Your task to perform on an android device: open device folders in google photos Image 0: 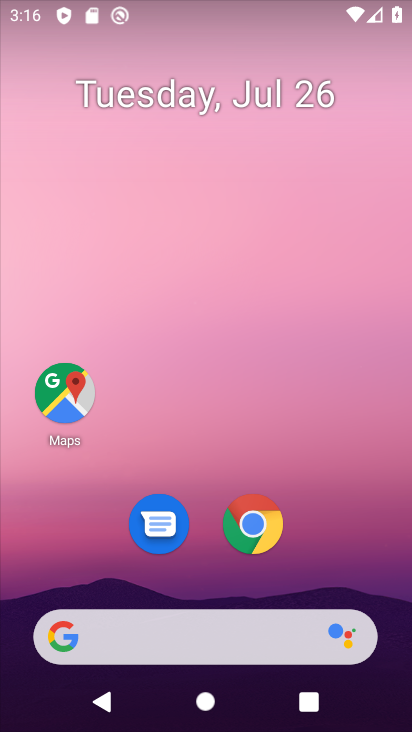
Step 0: drag from (312, 395) to (297, 17)
Your task to perform on an android device: open device folders in google photos Image 1: 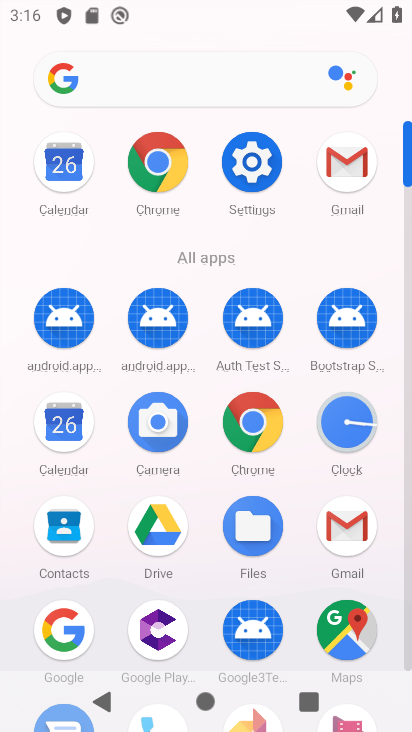
Step 1: drag from (302, 495) to (291, 217)
Your task to perform on an android device: open device folders in google photos Image 2: 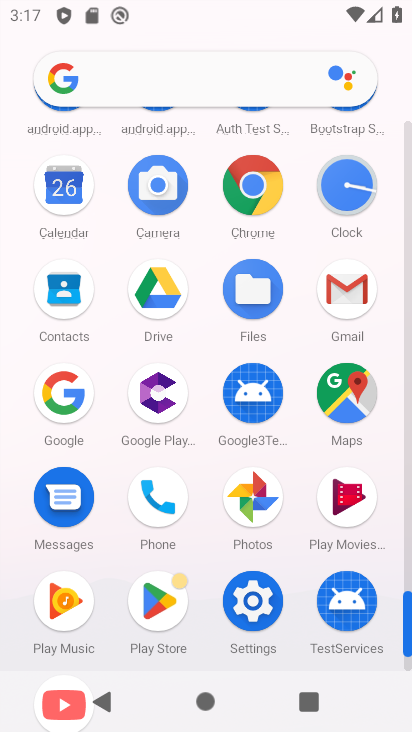
Step 2: click (257, 488)
Your task to perform on an android device: open device folders in google photos Image 3: 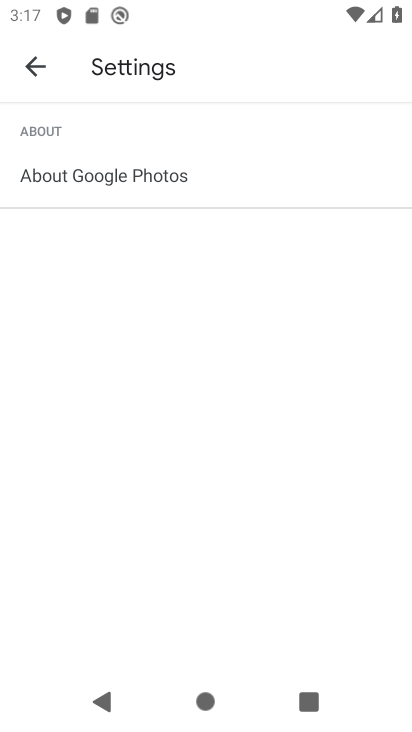
Step 3: click (41, 63)
Your task to perform on an android device: open device folders in google photos Image 4: 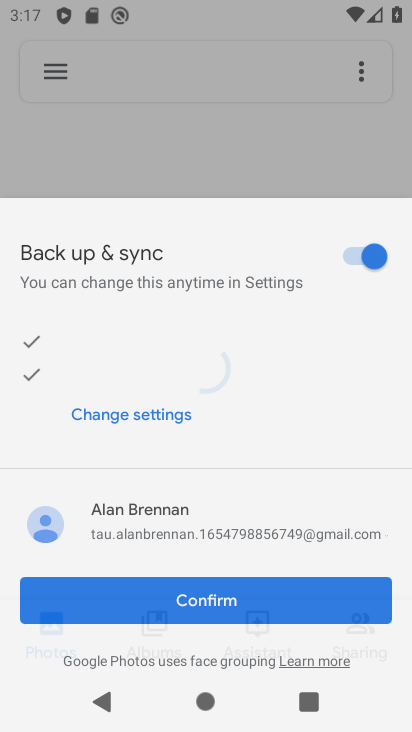
Step 4: click (56, 65)
Your task to perform on an android device: open device folders in google photos Image 5: 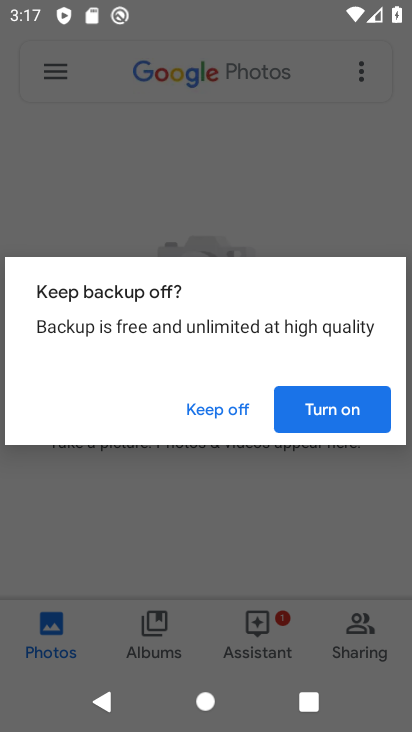
Step 5: click (302, 409)
Your task to perform on an android device: open device folders in google photos Image 6: 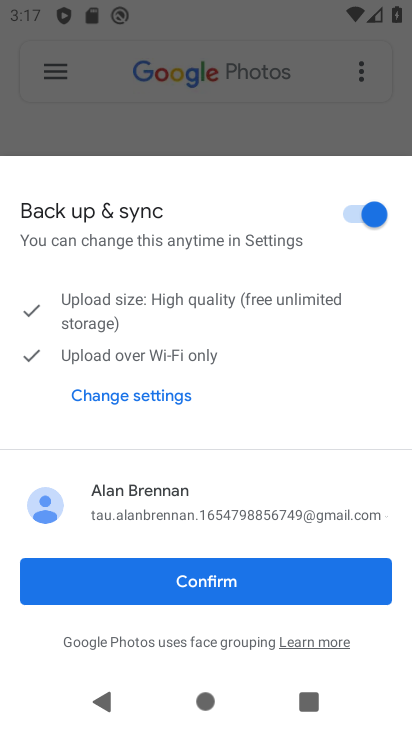
Step 6: click (220, 582)
Your task to perform on an android device: open device folders in google photos Image 7: 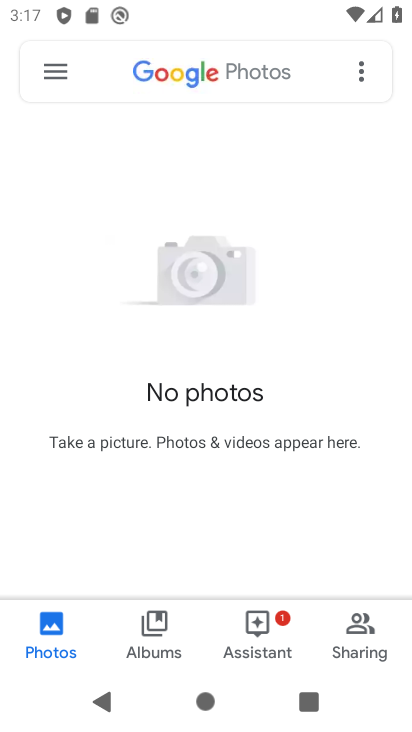
Step 7: click (59, 66)
Your task to perform on an android device: open device folders in google photos Image 8: 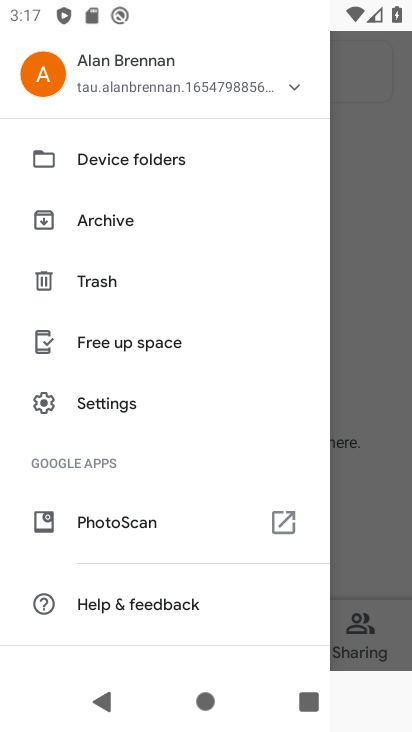
Step 8: click (114, 157)
Your task to perform on an android device: open device folders in google photos Image 9: 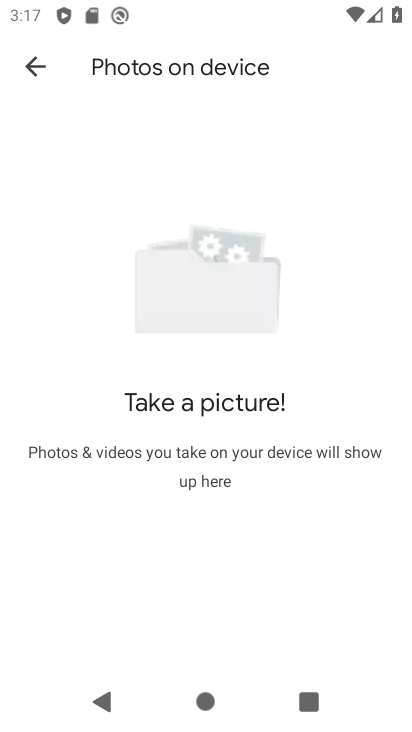
Step 9: task complete